Your task to perform on an android device: check google app version Image 0: 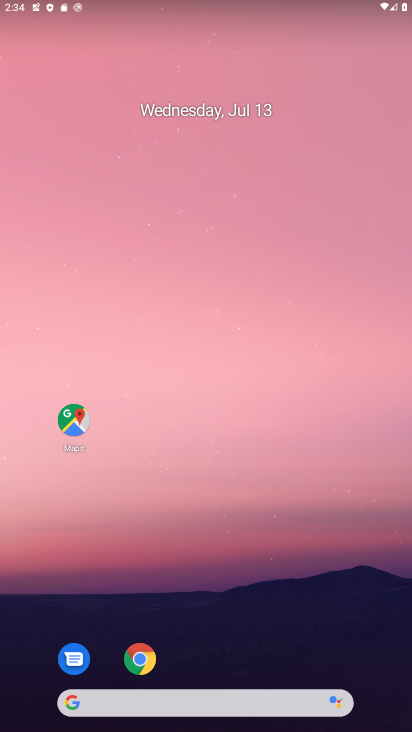
Step 0: drag from (235, 579) to (221, 221)
Your task to perform on an android device: check google app version Image 1: 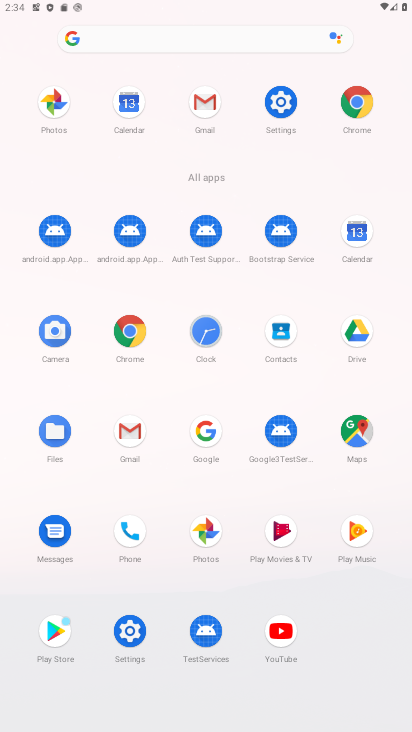
Step 1: click (201, 431)
Your task to perform on an android device: check google app version Image 2: 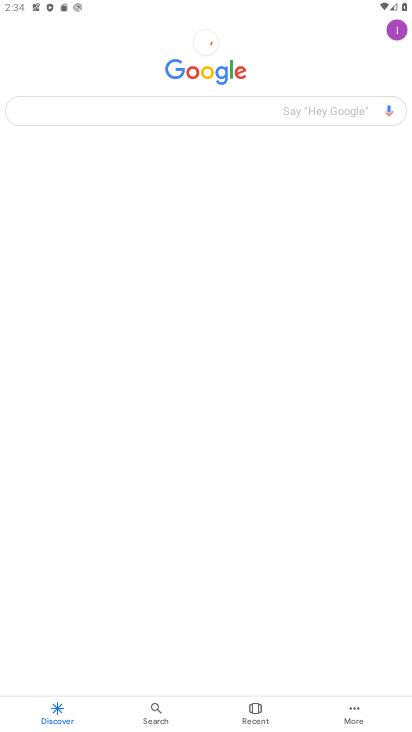
Step 2: click (361, 709)
Your task to perform on an android device: check google app version Image 3: 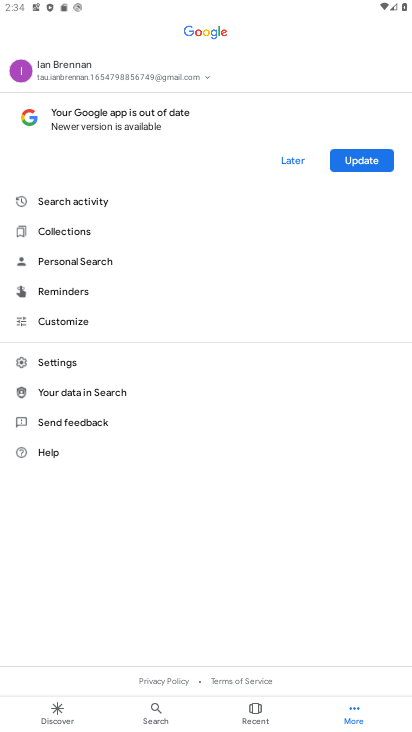
Step 3: click (51, 364)
Your task to perform on an android device: check google app version Image 4: 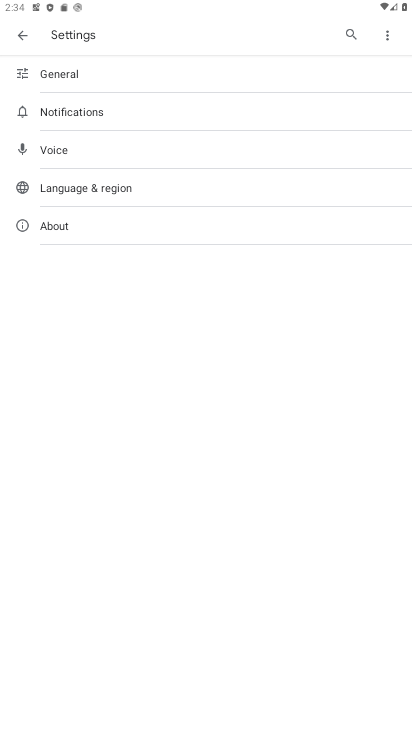
Step 4: click (95, 223)
Your task to perform on an android device: check google app version Image 5: 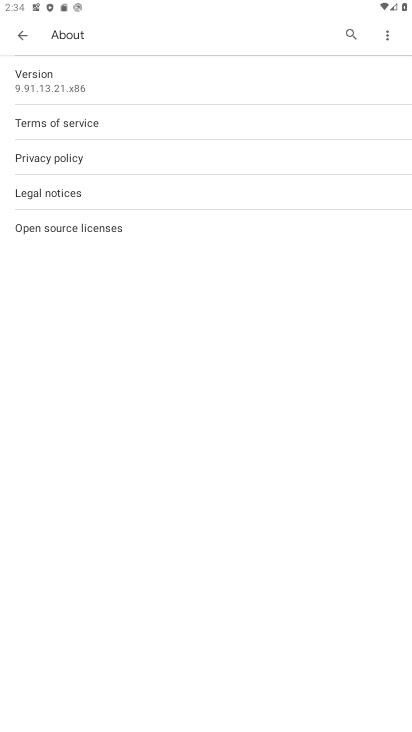
Step 5: click (130, 92)
Your task to perform on an android device: check google app version Image 6: 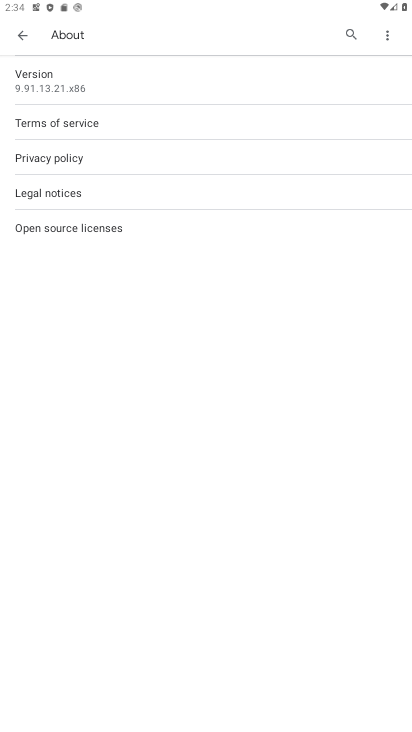
Step 6: task complete